Your task to perform on an android device: turn off priority inbox in the gmail app Image 0: 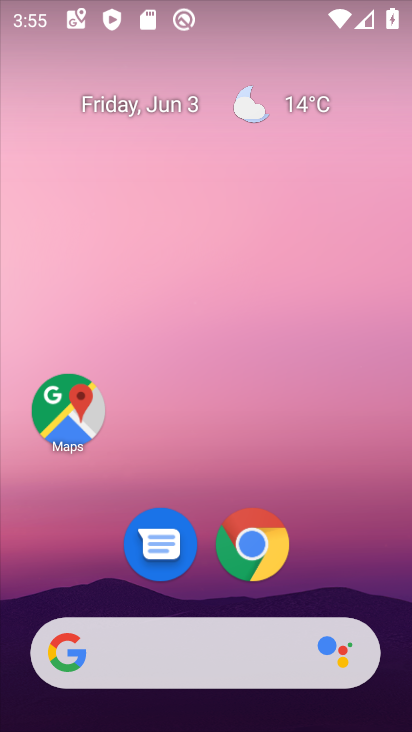
Step 0: drag from (392, 624) to (376, 71)
Your task to perform on an android device: turn off priority inbox in the gmail app Image 1: 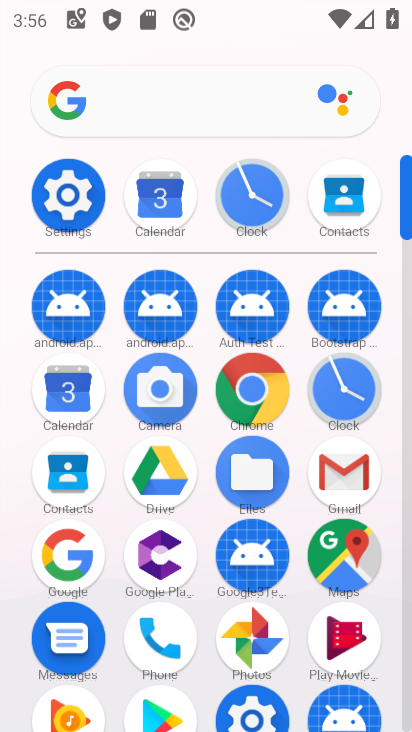
Step 1: click (340, 472)
Your task to perform on an android device: turn off priority inbox in the gmail app Image 2: 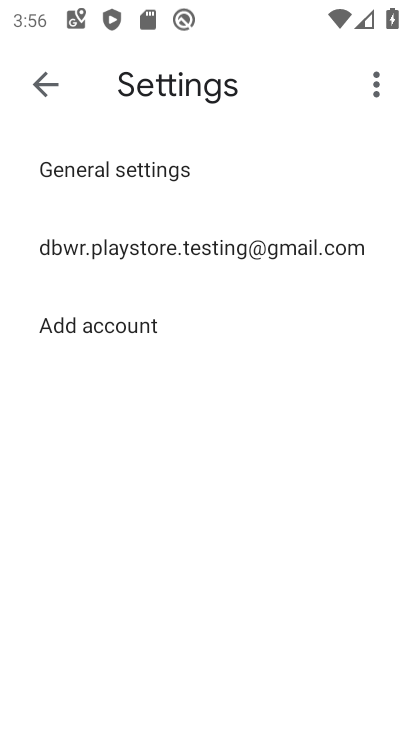
Step 2: click (112, 234)
Your task to perform on an android device: turn off priority inbox in the gmail app Image 3: 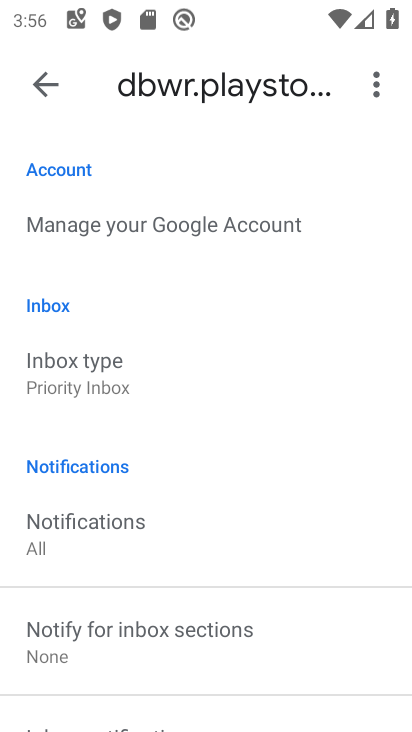
Step 3: click (55, 367)
Your task to perform on an android device: turn off priority inbox in the gmail app Image 4: 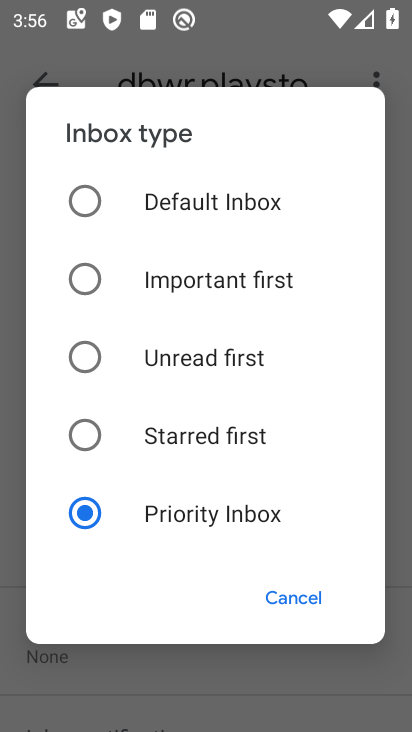
Step 4: click (94, 205)
Your task to perform on an android device: turn off priority inbox in the gmail app Image 5: 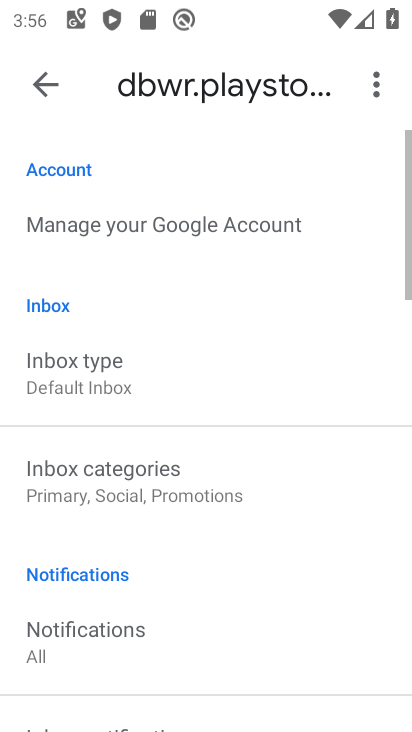
Step 5: task complete